Your task to perform on an android device: turn on sleep mode Image 0: 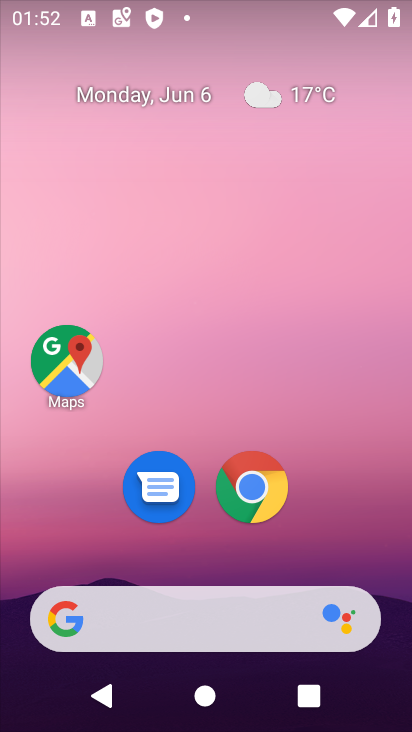
Step 0: drag from (402, 621) to (323, 140)
Your task to perform on an android device: turn on sleep mode Image 1: 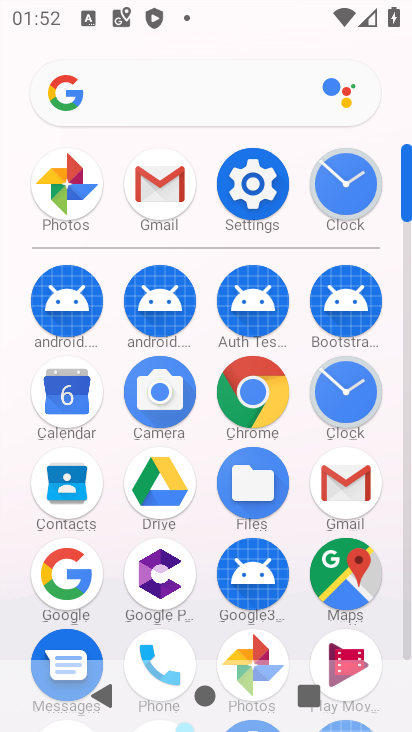
Step 1: click (405, 624)
Your task to perform on an android device: turn on sleep mode Image 2: 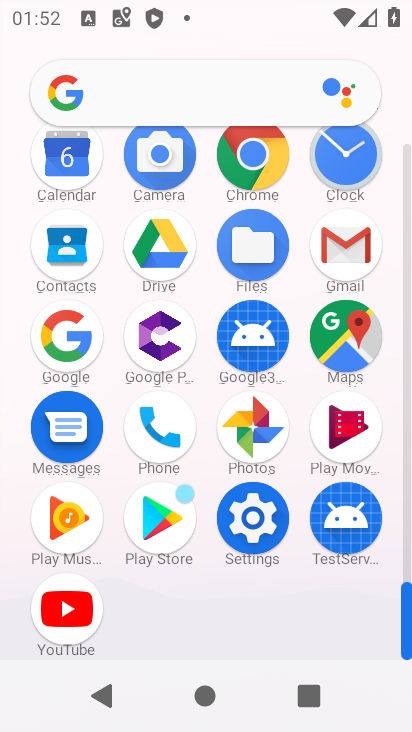
Step 2: click (251, 517)
Your task to perform on an android device: turn on sleep mode Image 3: 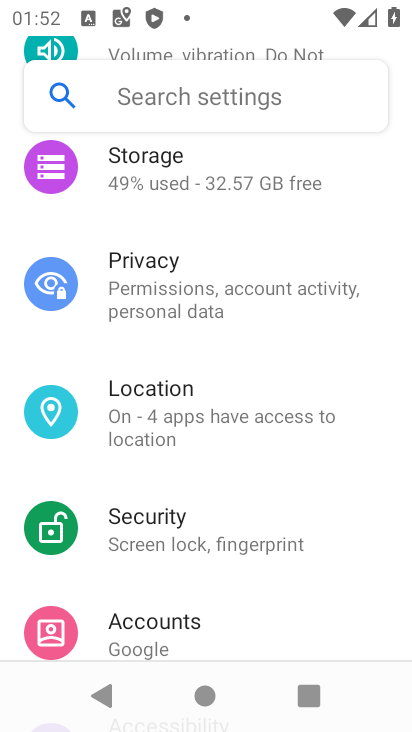
Step 3: drag from (333, 260) to (335, 548)
Your task to perform on an android device: turn on sleep mode Image 4: 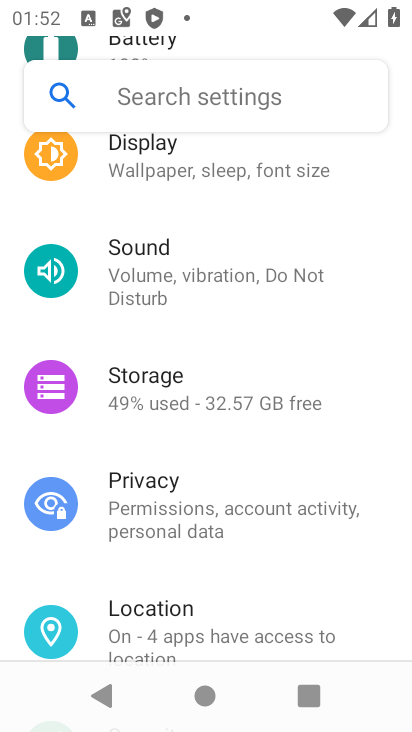
Step 4: click (165, 165)
Your task to perform on an android device: turn on sleep mode Image 5: 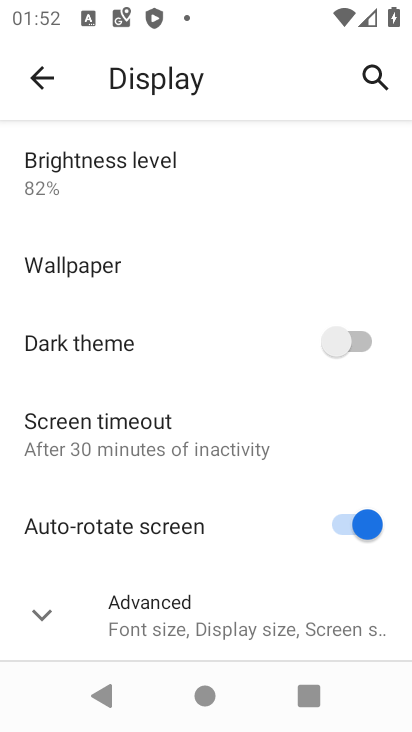
Step 5: click (36, 606)
Your task to perform on an android device: turn on sleep mode Image 6: 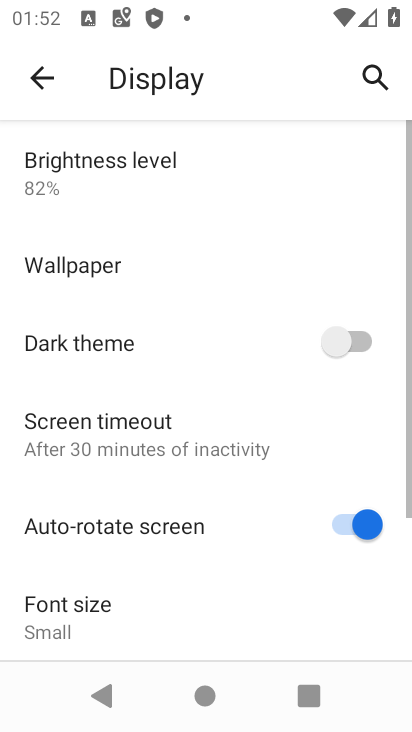
Step 6: task complete